Your task to perform on an android device: Search for vegetarian restaurants on Maps Image 0: 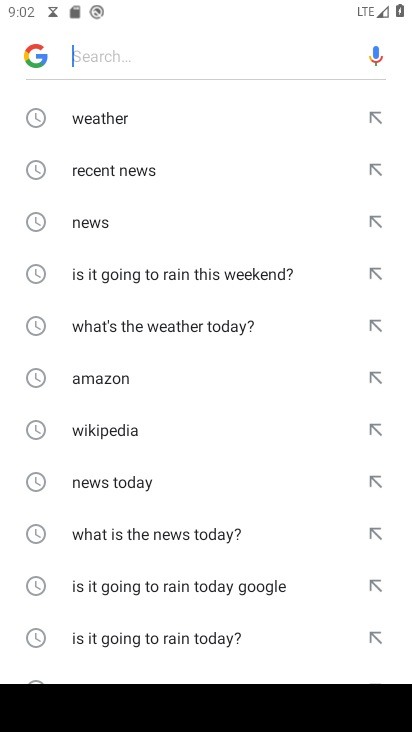
Step 0: press home button
Your task to perform on an android device: Search for vegetarian restaurants on Maps Image 1: 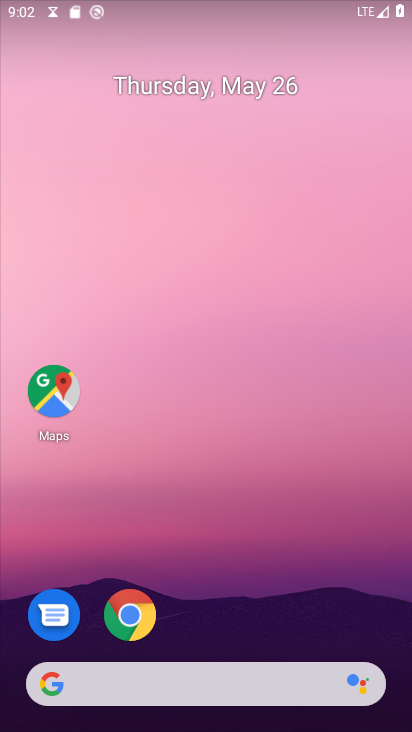
Step 1: drag from (196, 534) to (247, 305)
Your task to perform on an android device: Search for vegetarian restaurants on Maps Image 2: 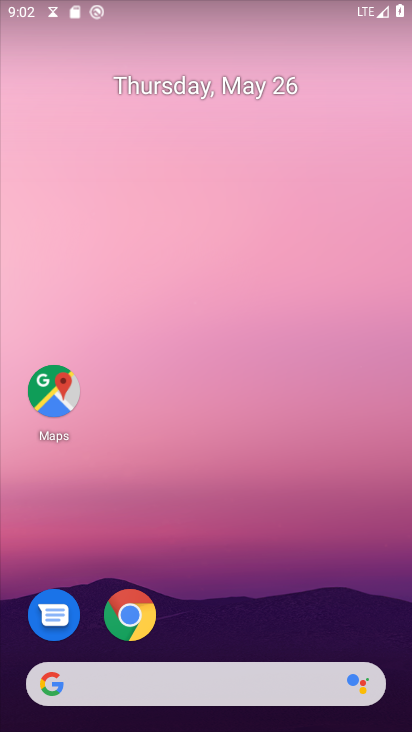
Step 2: click (43, 380)
Your task to perform on an android device: Search for vegetarian restaurants on Maps Image 3: 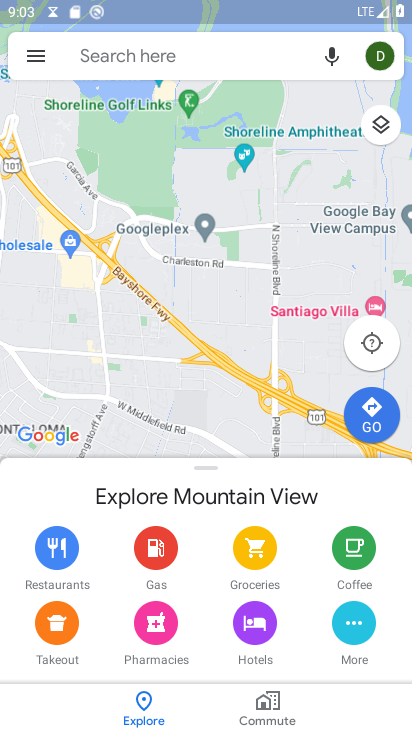
Step 3: click (190, 49)
Your task to perform on an android device: Search for vegetarian restaurants on Maps Image 4: 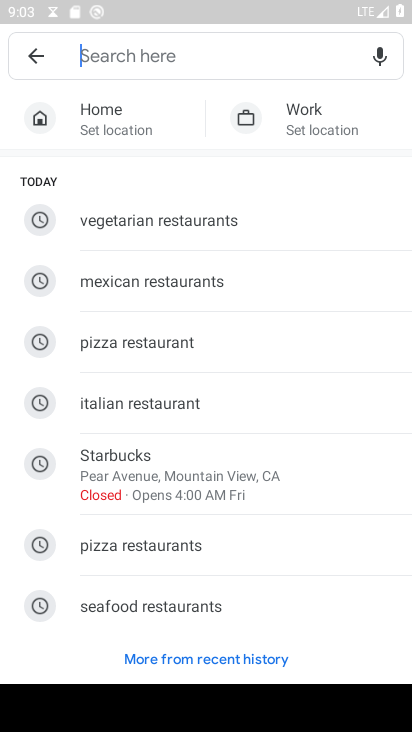
Step 4: click (194, 215)
Your task to perform on an android device: Search for vegetarian restaurants on Maps Image 5: 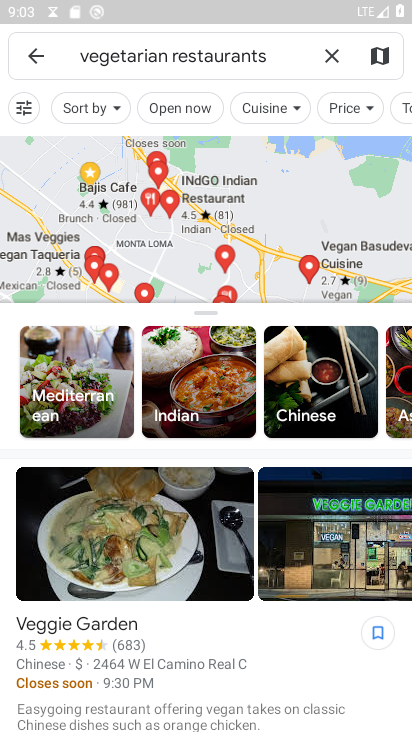
Step 5: task complete